Your task to perform on an android device: Turn on the flashlight Image 0: 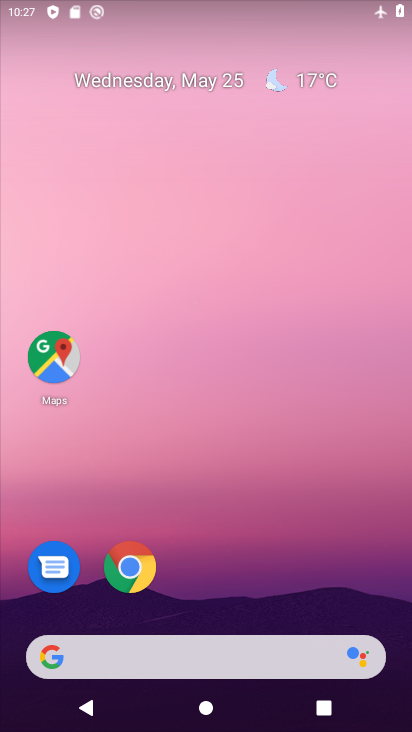
Step 0: drag from (320, 607) to (282, 76)
Your task to perform on an android device: Turn on the flashlight Image 1: 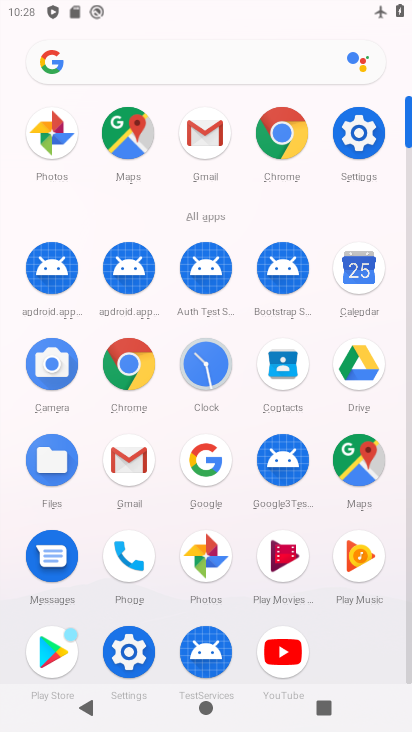
Step 1: task complete